Your task to perform on an android device: move an email to a new category in the gmail app Image 0: 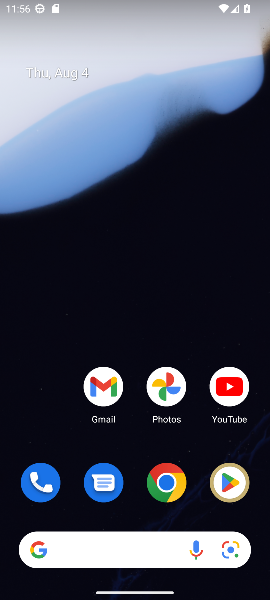
Step 0: drag from (129, 452) to (142, 150)
Your task to perform on an android device: move an email to a new category in the gmail app Image 1: 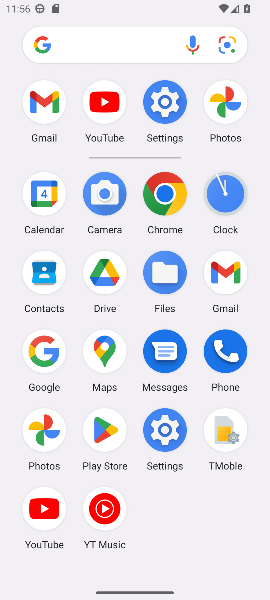
Step 1: click (43, 122)
Your task to perform on an android device: move an email to a new category in the gmail app Image 2: 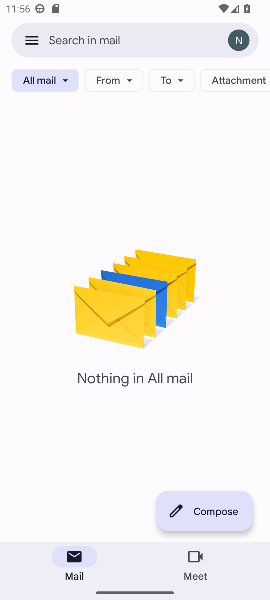
Step 2: click (35, 50)
Your task to perform on an android device: move an email to a new category in the gmail app Image 3: 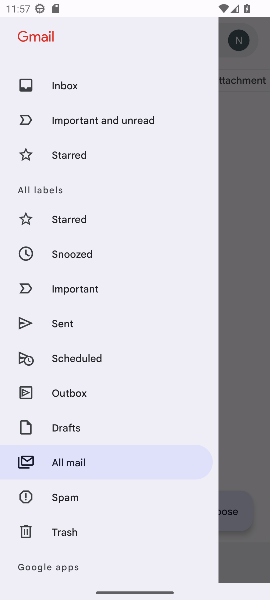
Step 3: click (120, 461)
Your task to perform on an android device: move an email to a new category in the gmail app Image 4: 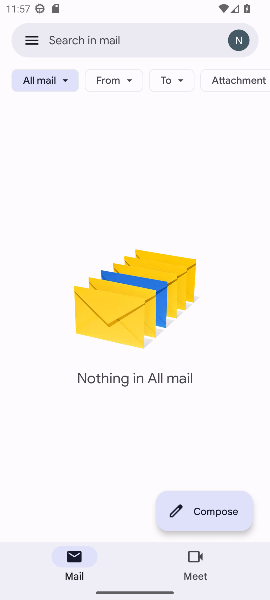
Step 4: task complete